Your task to perform on an android device: Is it going to rain today? Image 0: 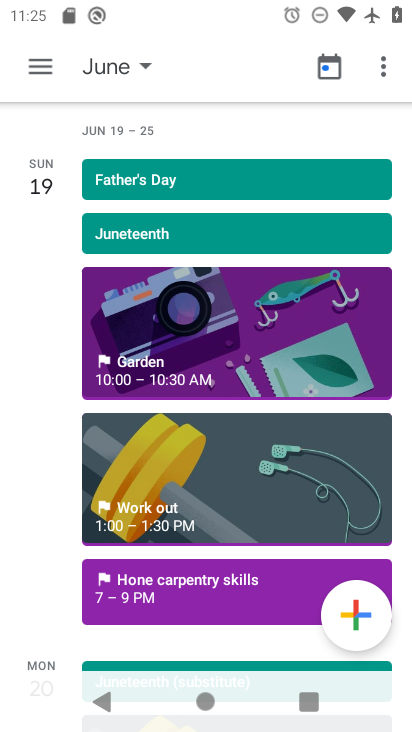
Step 0: press home button
Your task to perform on an android device: Is it going to rain today? Image 1: 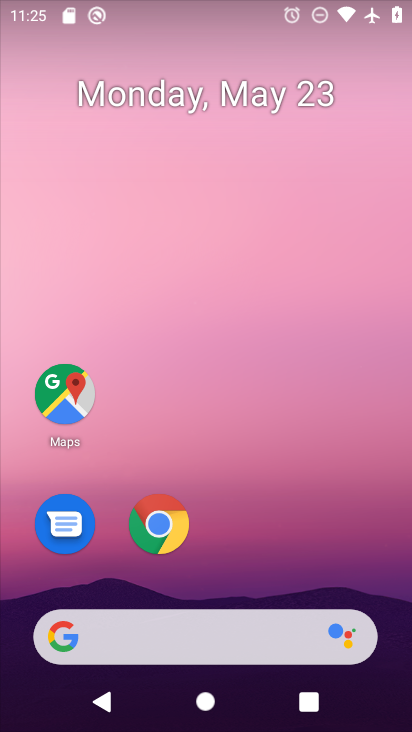
Step 1: drag from (222, 565) to (281, 120)
Your task to perform on an android device: Is it going to rain today? Image 2: 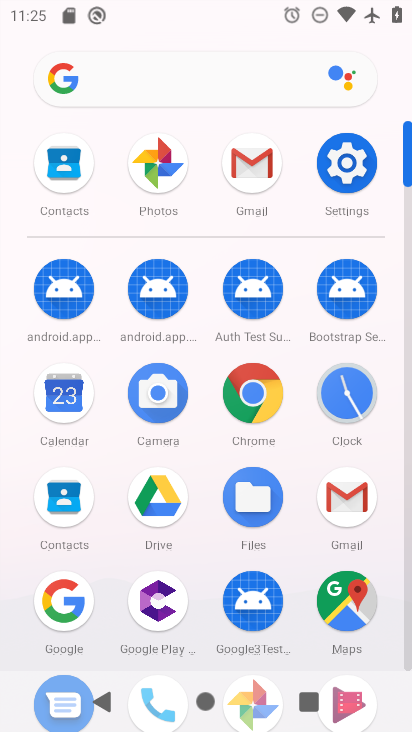
Step 2: click (69, 578)
Your task to perform on an android device: Is it going to rain today? Image 3: 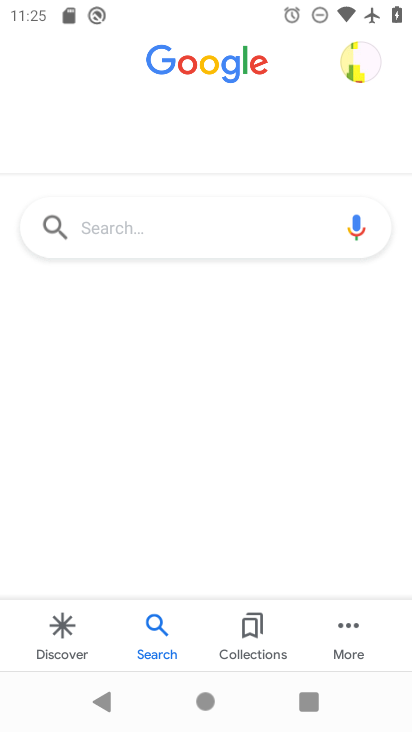
Step 3: click (257, 212)
Your task to perform on an android device: Is it going to rain today? Image 4: 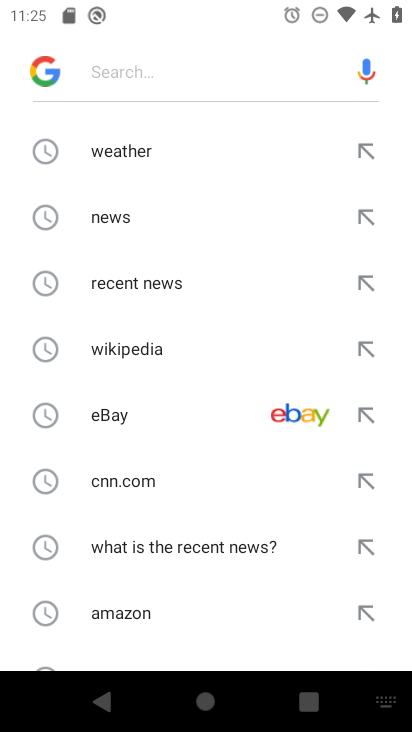
Step 4: click (139, 161)
Your task to perform on an android device: Is it going to rain today? Image 5: 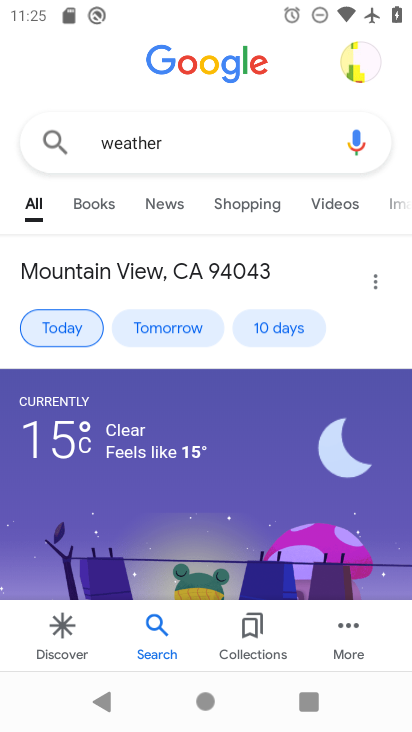
Step 5: task complete